Your task to perform on an android device: Do I have any events today? Image 0: 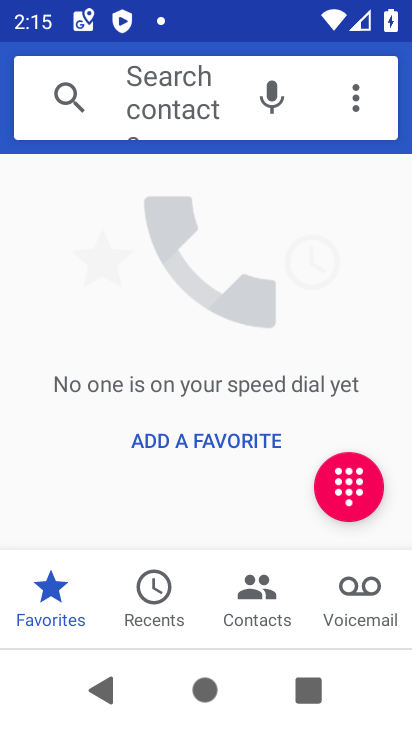
Step 0: press home button
Your task to perform on an android device: Do I have any events today? Image 1: 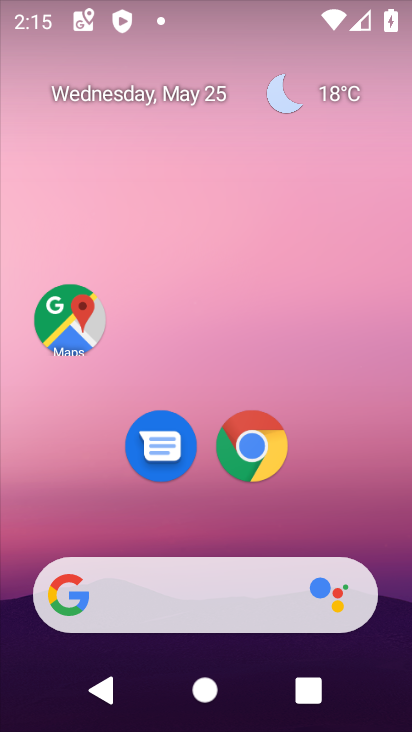
Step 1: drag from (200, 590) to (193, 10)
Your task to perform on an android device: Do I have any events today? Image 2: 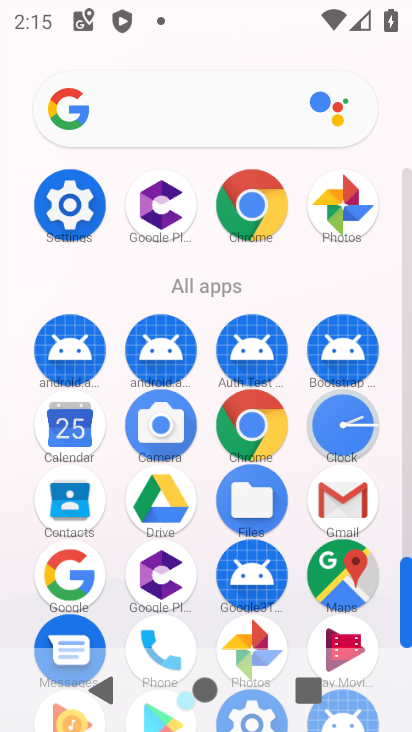
Step 2: click (50, 431)
Your task to perform on an android device: Do I have any events today? Image 3: 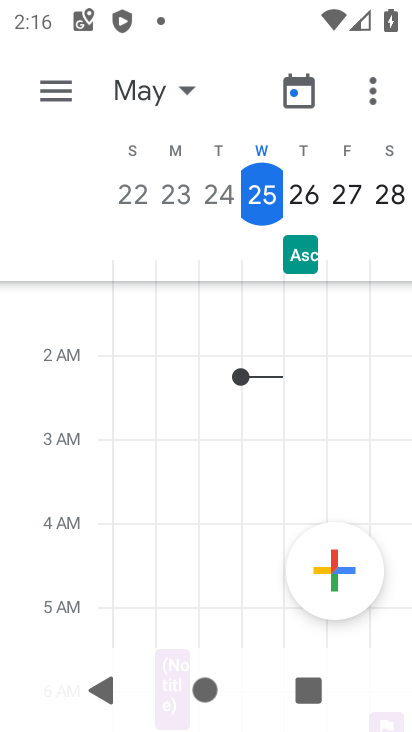
Step 3: click (58, 85)
Your task to perform on an android device: Do I have any events today? Image 4: 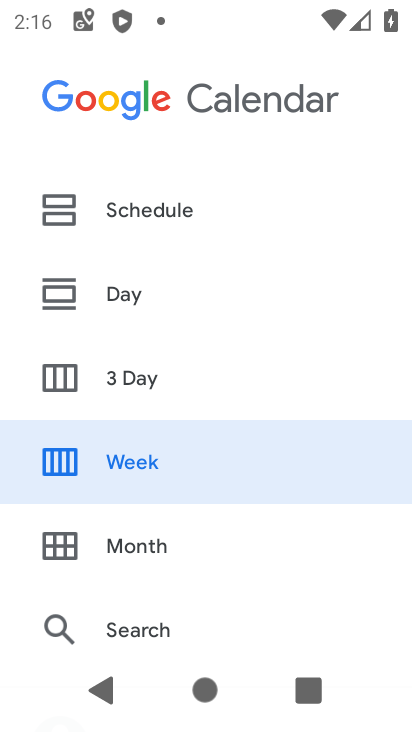
Step 4: click (138, 213)
Your task to perform on an android device: Do I have any events today? Image 5: 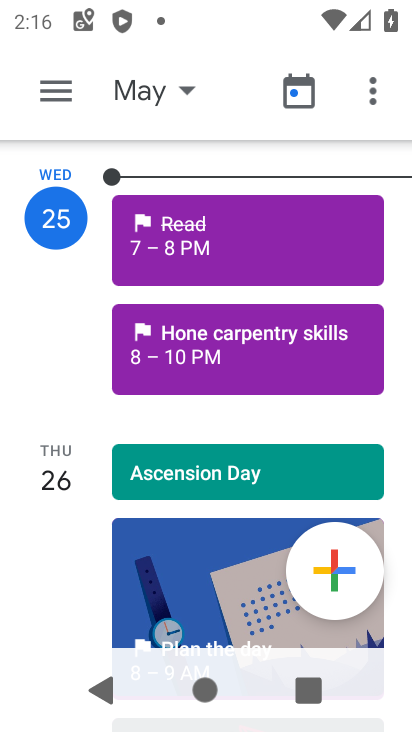
Step 5: task complete